Your task to perform on an android device: Go to privacy settings Image 0: 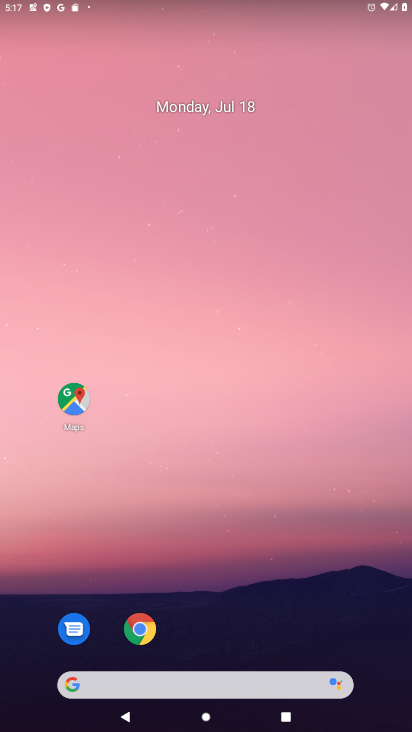
Step 0: drag from (271, 583) to (344, 3)
Your task to perform on an android device: Go to privacy settings Image 1: 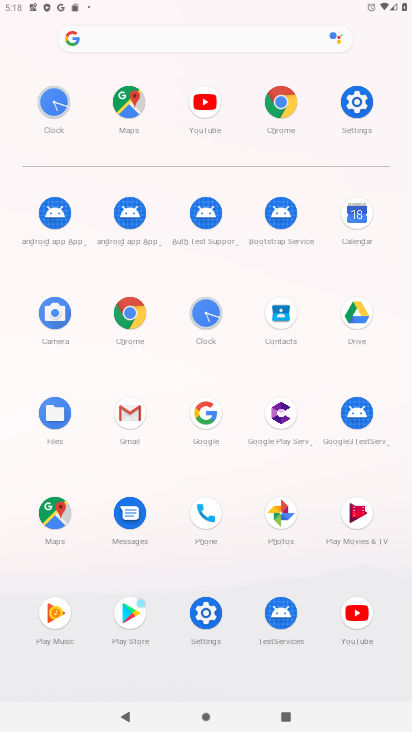
Step 1: click (361, 96)
Your task to perform on an android device: Go to privacy settings Image 2: 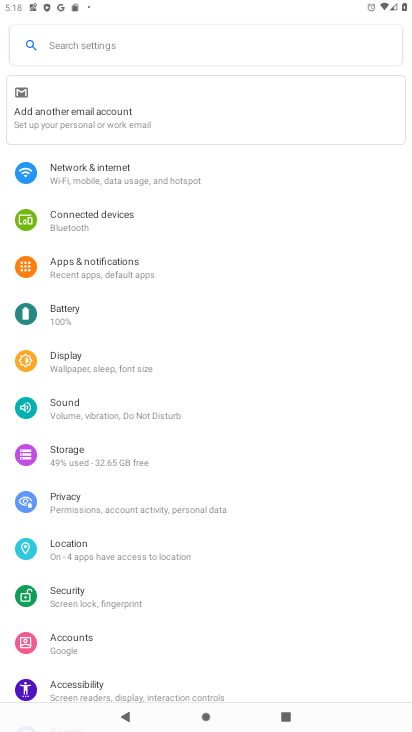
Step 2: click (73, 499)
Your task to perform on an android device: Go to privacy settings Image 3: 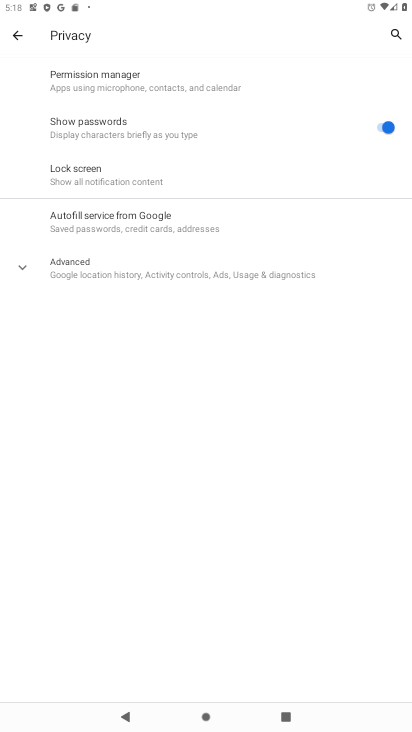
Step 3: task complete